Your task to perform on an android device: add a label to a message in the gmail app Image 0: 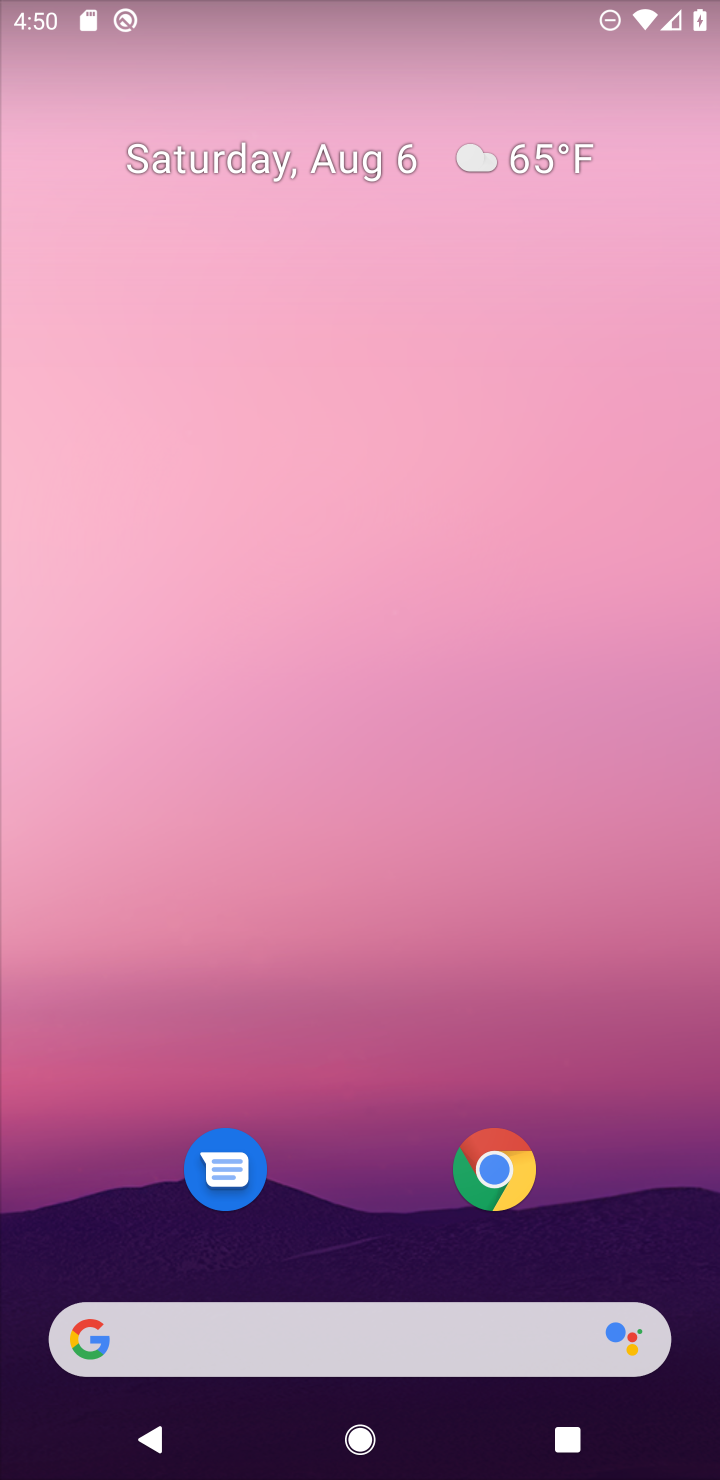
Step 0: drag from (333, 773) to (319, 238)
Your task to perform on an android device: add a label to a message in the gmail app Image 1: 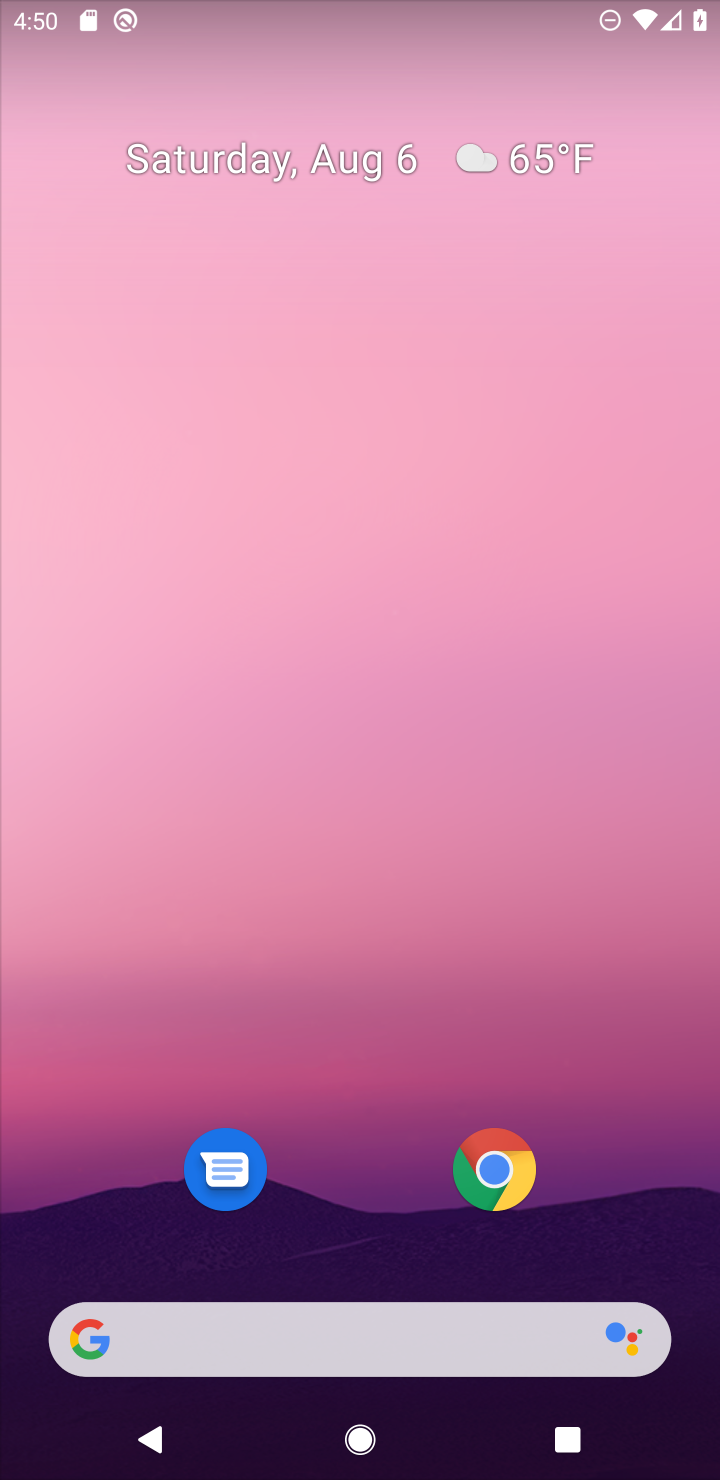
Step 1: drag from (261, 435) to (267, 15)
Your task to perform on an android device: add a label to a message in the gmail app Image 2: 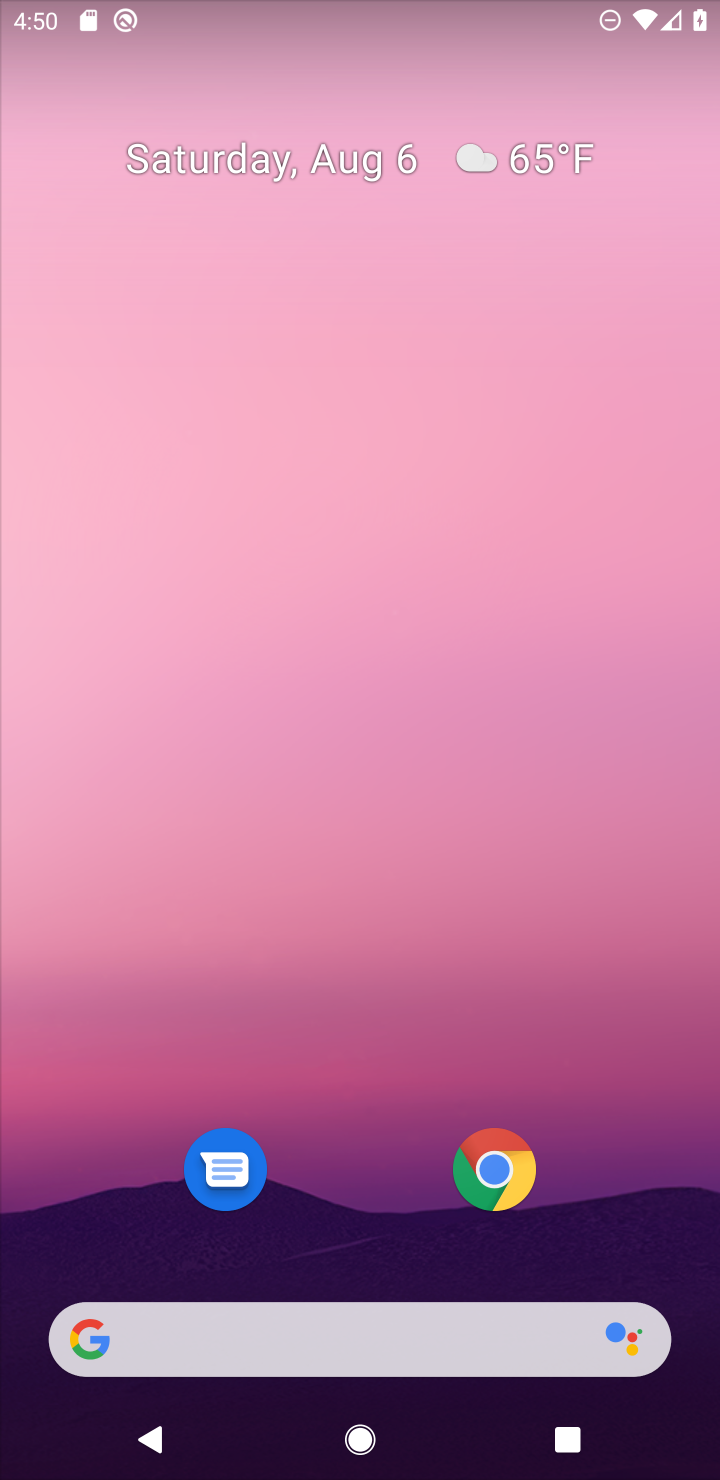
Step 2: drag from (345, 1179) to (295, 18)
Your task to perform on an android device: add a label to a message in the gmail app Image 3: 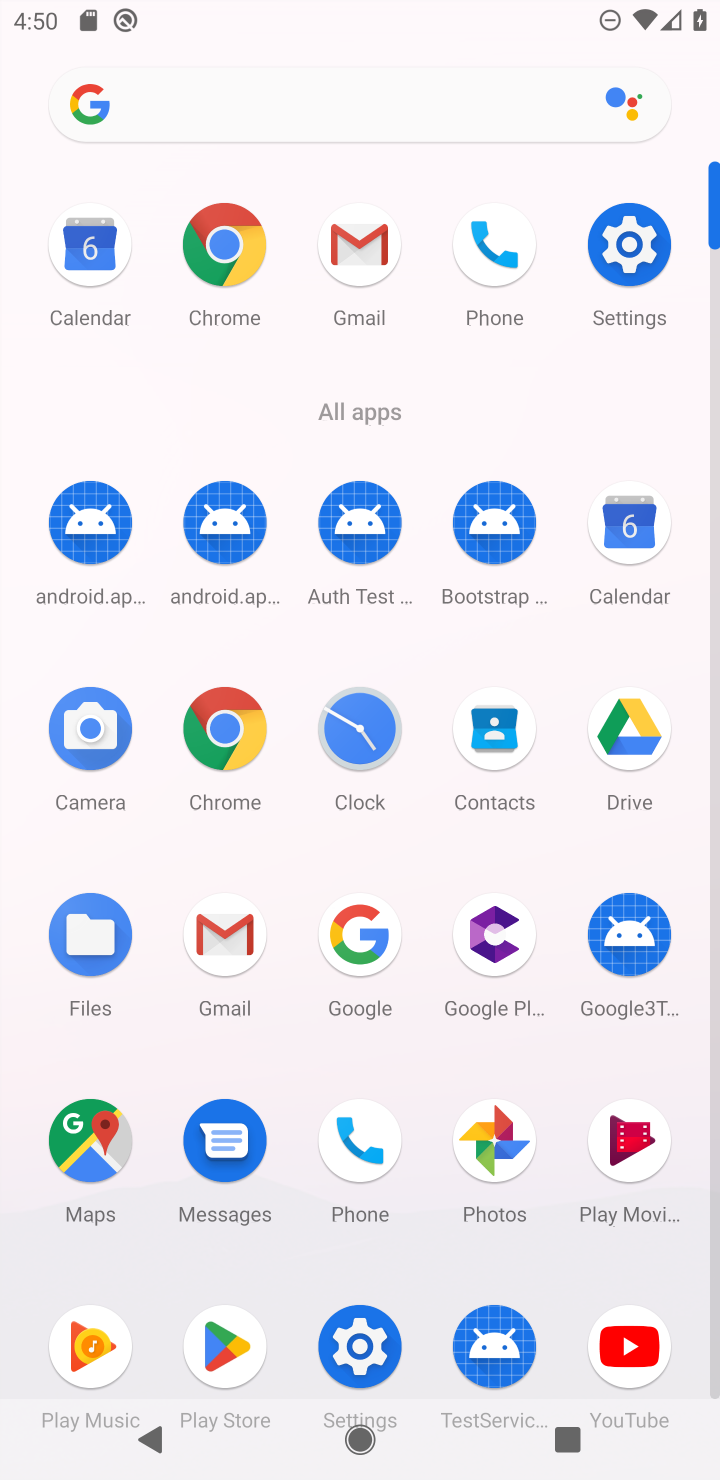
Step 3: click (349, 246)
Your task to perform on an android device: add a label to a message in the gmail app Image 4: 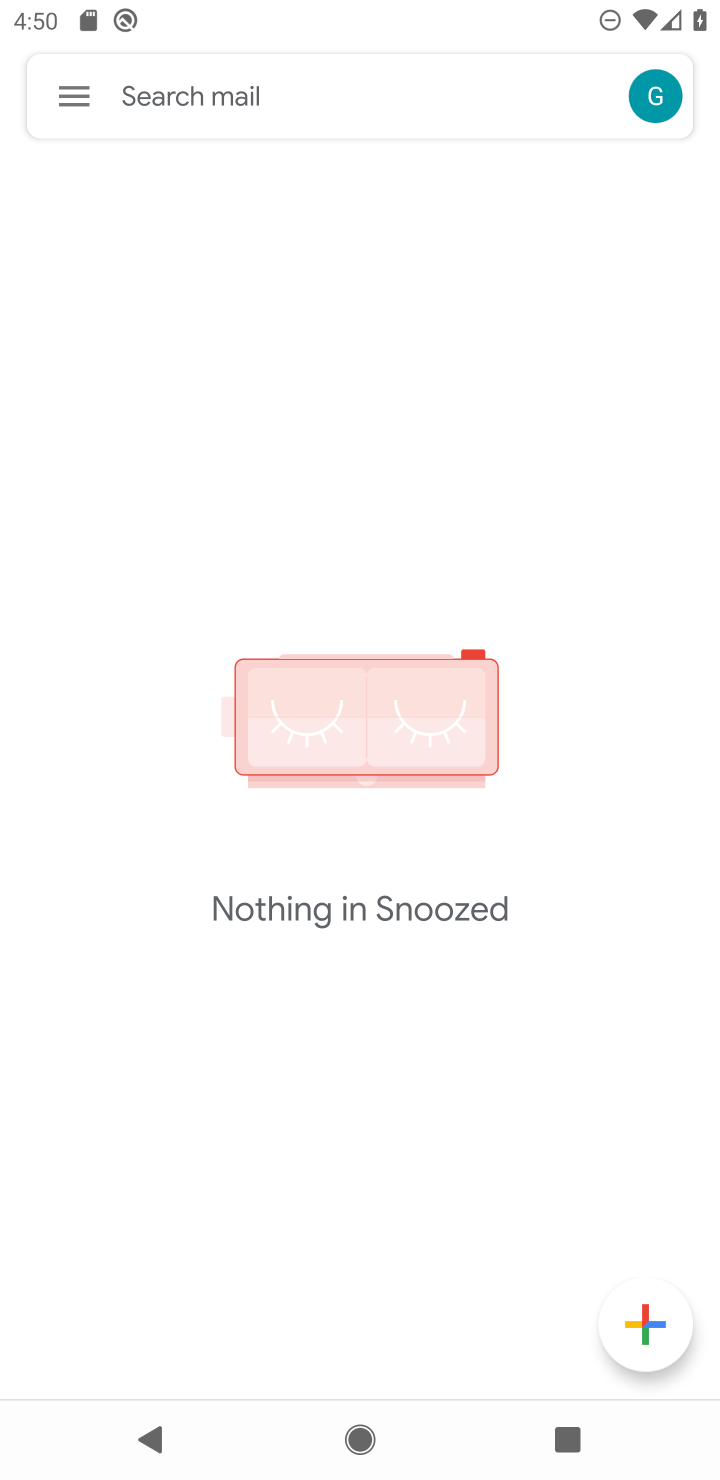
Step 4: click (84, 104)
Your task to perform on an android device: add a label to a message in the gmail app Image 5: 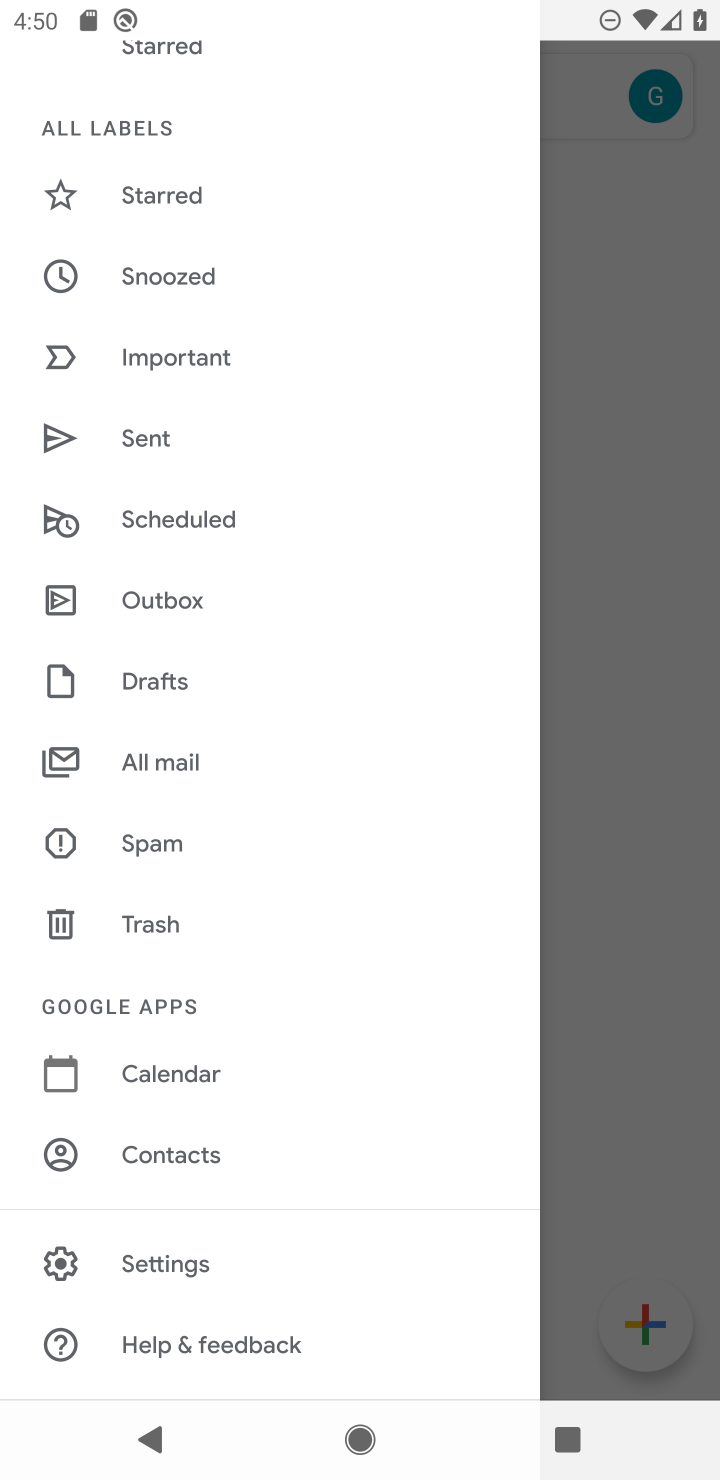
Step 5: click (199, 774)
Your task to perform on an android device: add a label to a message in the gmail app Image 6: 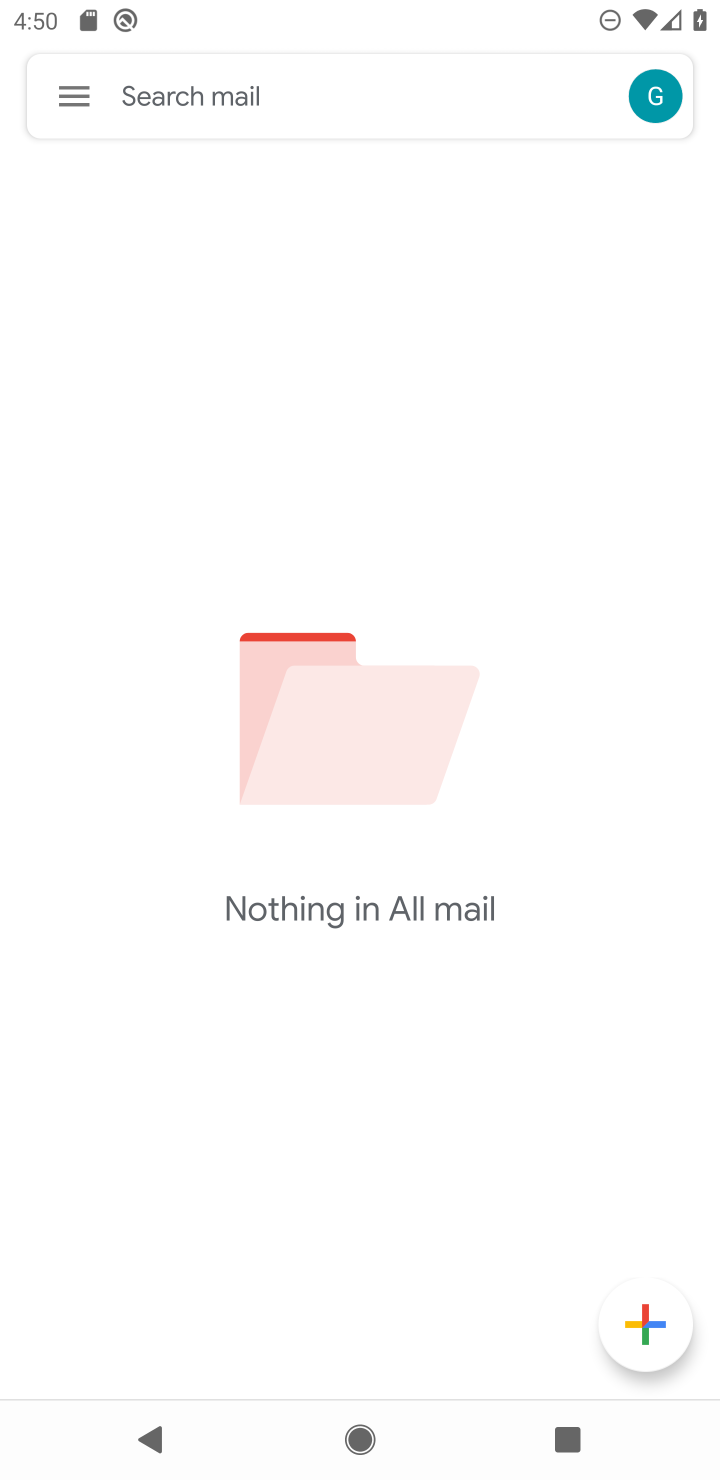
Step 6: task complete